Your task to perform on an android device: Open internet settings Image 0: 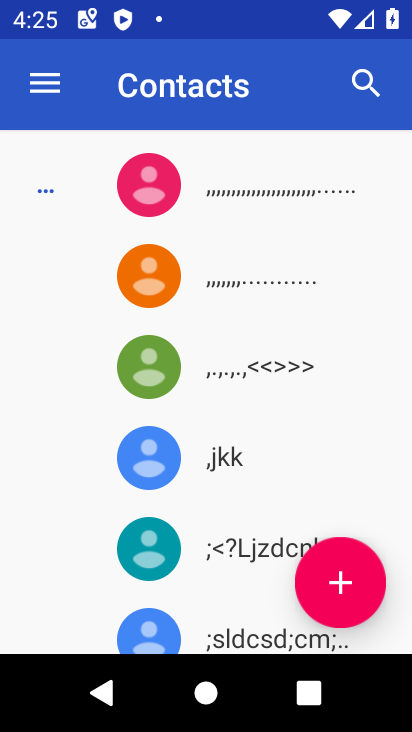
Step 0: press home button
Your task to perform on an android device: Open internet settings Image 1: 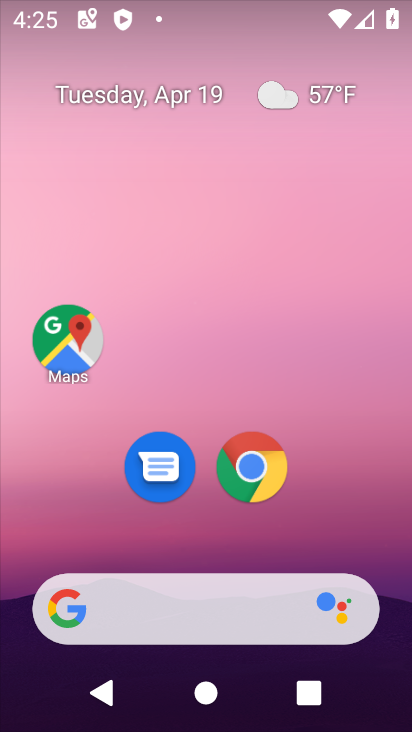
Step 1: drag from (325, 549) to (299, 52)
Your task to perform on an android device: Open internet settings Image 2: 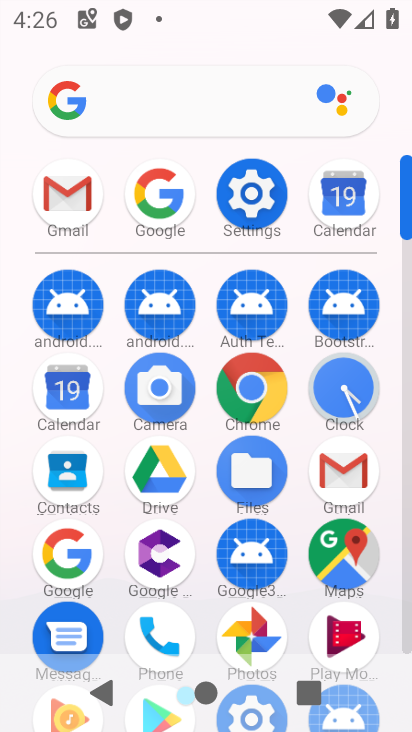
Step 2: click (250, 193)
Your task to perform on an android device: Open internet settings Image 3: 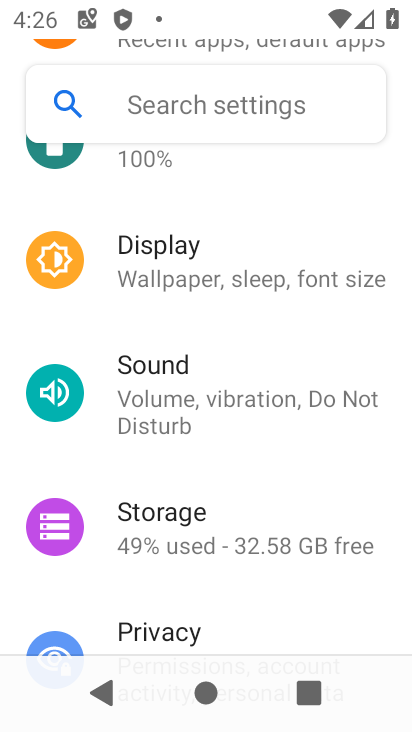
Step 3: drag from (294, 349) to (356, 727)
Your task to perform on an android device: Open internet settings Image 4: 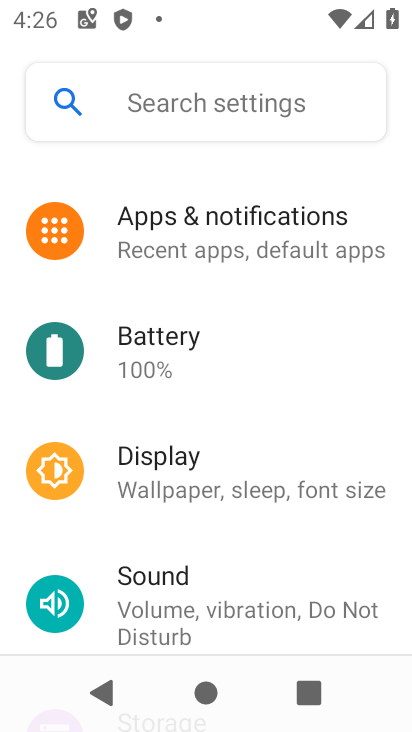
Step 4: drag from (290, 486) to (314, 699)
Your task to perform on an android device: Open internet settings Image 5: 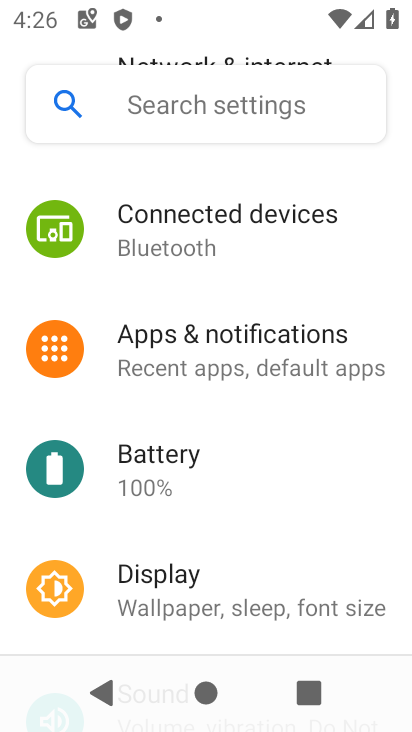
Step 5: drag from (246, 269) to (273, 550)
Your task to perform on an android device: Open internet settings Image 6: 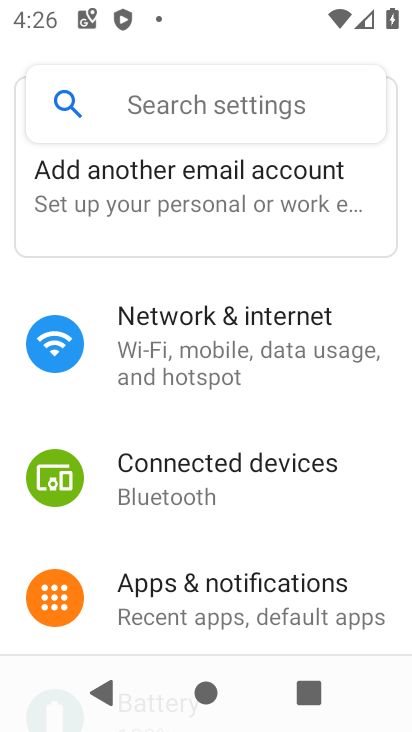
Step 6: click (248, 347)
Your task to perform on an android device: Open internet settings Image 7: 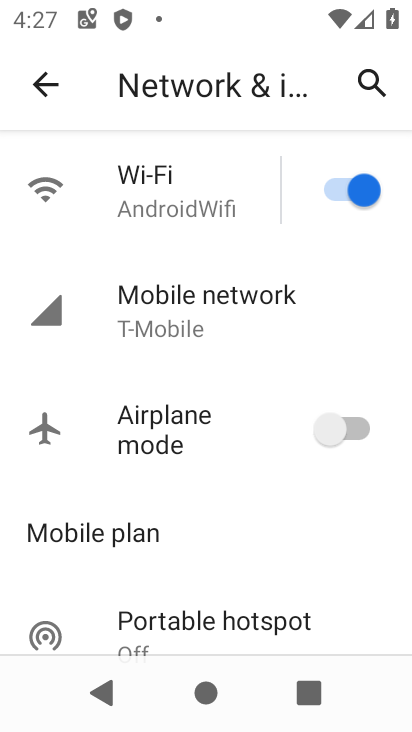
Step 7: task complete